Your task to perform on an android device: set the stopwatch Image 0: 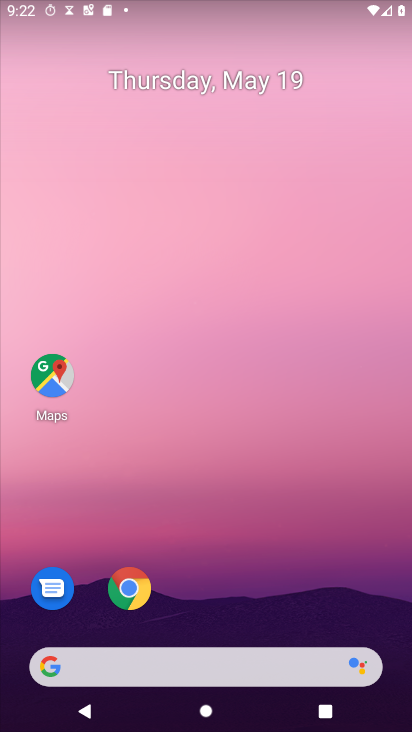
Step 0: press home button
Your task to perform on an android device: set the stopwatch Image 1: 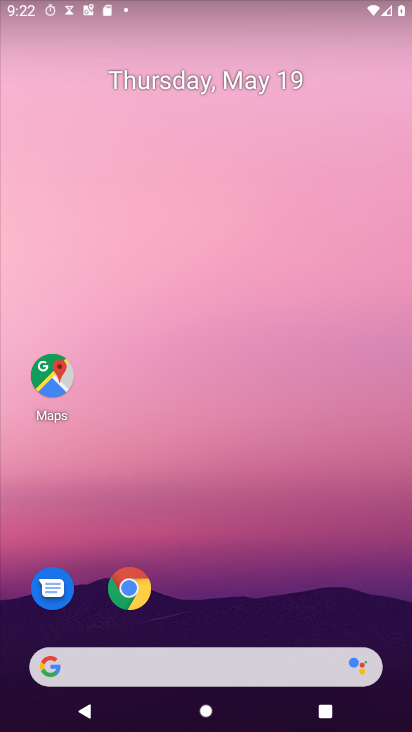
Step 1: drag from (161, 660) to (289, 160)
Your task to perform on an android device: set the stopwatch Image 2: 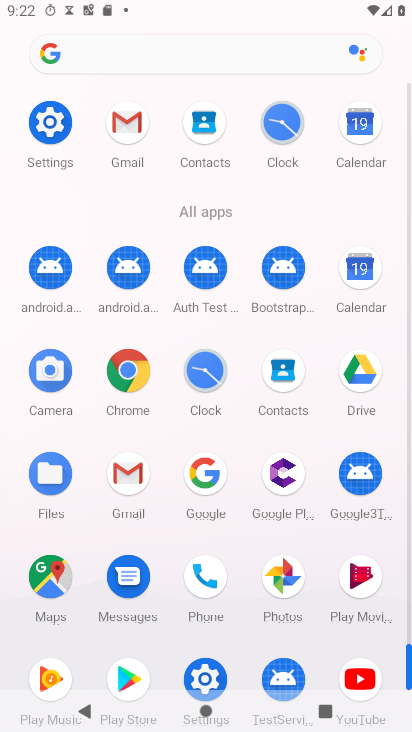
Step 2: click (287, 122)
Your task to perform on an android device: set the stopwatch Image 3: 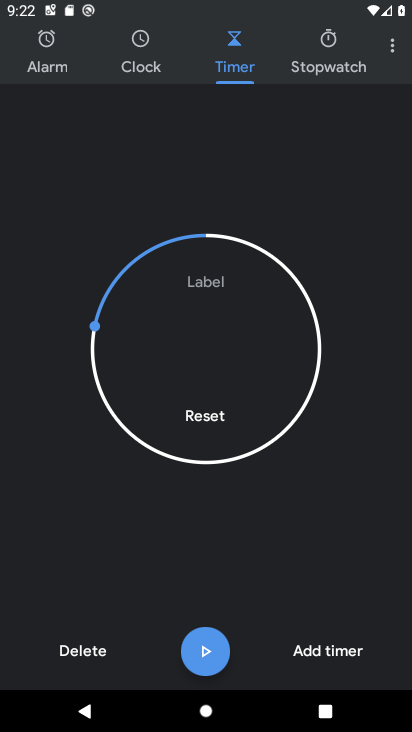
Step 3: click (331, 63)
Your task to perform on an android device: set the stopwatch Image 4: 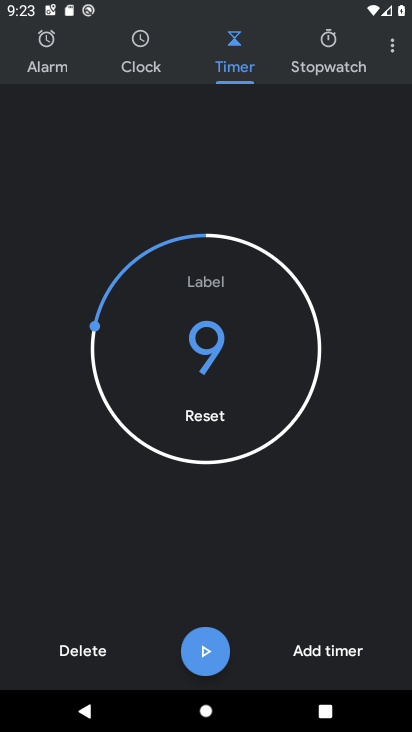
Step 4: click (102, 656)
Your task to perform on an android device: set the stopwatch Image 5: 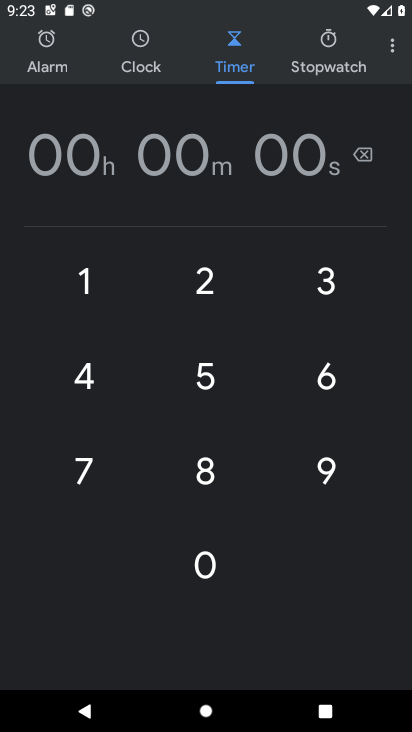
Step 5: click (332, 72)
Your task to perform on an android device: set the stopwatch Image 6: 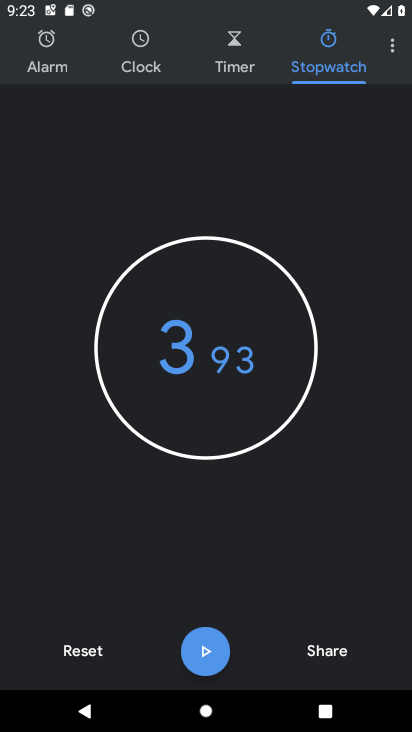
Step 6: click (75, 652)
Your task to perform on an android device: set the stopwatch Image 7: 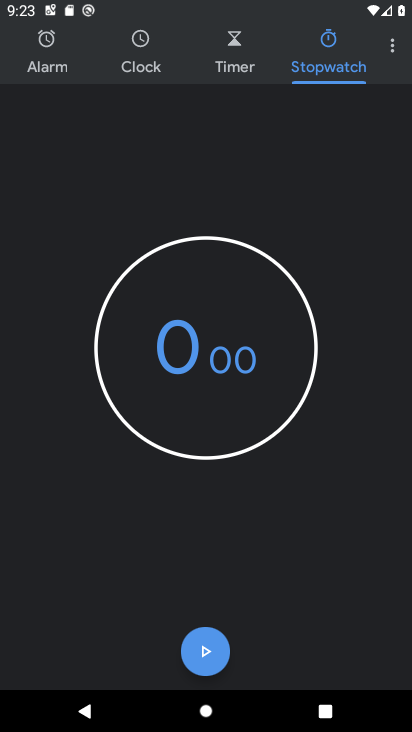
Step 7: click (233, 344)
Your task to perform on an android device: set the stopwatch Image 8: 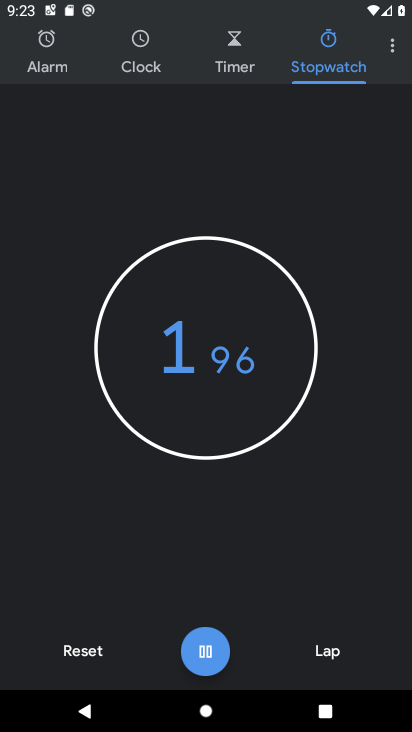
Step 8: click (233, 344)
Your task to perform on an android device: set the stopwatch Image 9: 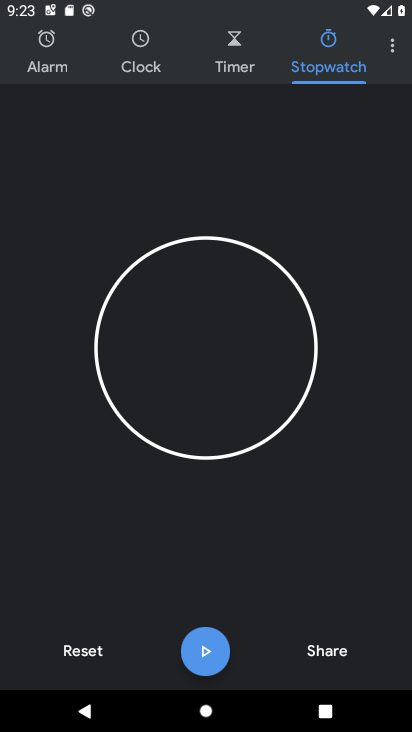
Step 9: task complete